Your task to perform on an android device: clear all cookies in the chrome app Image 0: 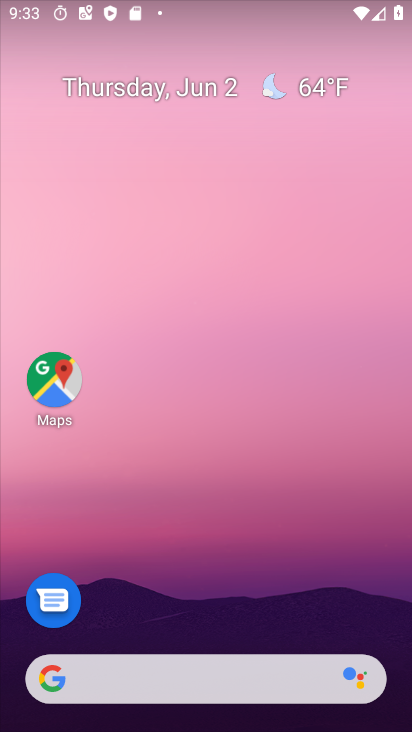
Step 0: drag from (208, 611) to (226, 27)
Your task to perform on an android device: clear all cookies in the chrome app Image 1: 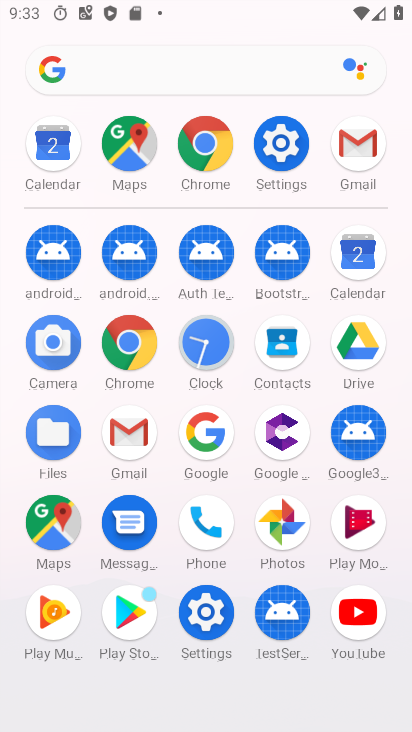
Step 1: click (132, 332)
Your task to perform on an android device: clear all cookies in the chrome app Image 2: 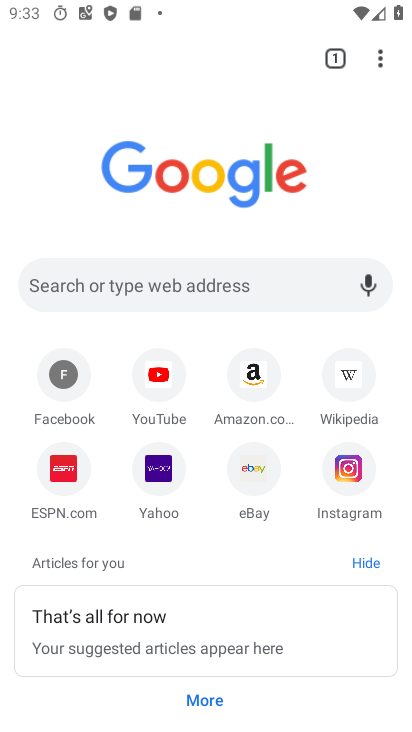
Step 2: click (370, 58)
Your task to perform on an android device: clear all cookies in the chrome app Image 3: 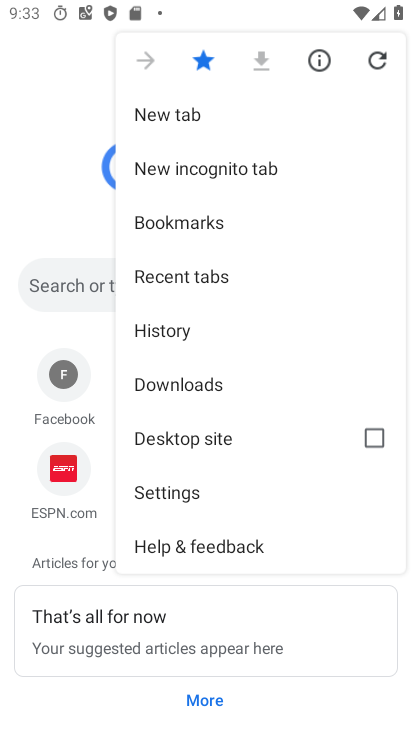
Step 3: click (197, 494)
Your task to perform on an android device: clear all cookies in the chrome app Image 4: 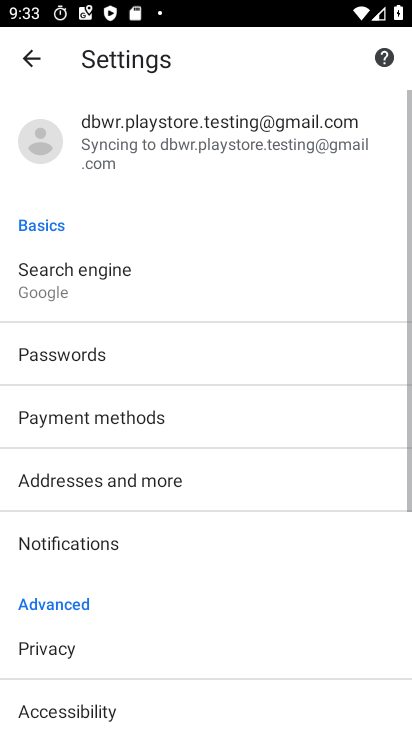
Step 4: drag from (198, 581) to (227, 93)
Your task to perform on an android device: clear all cookies in the chrome app Image 5: 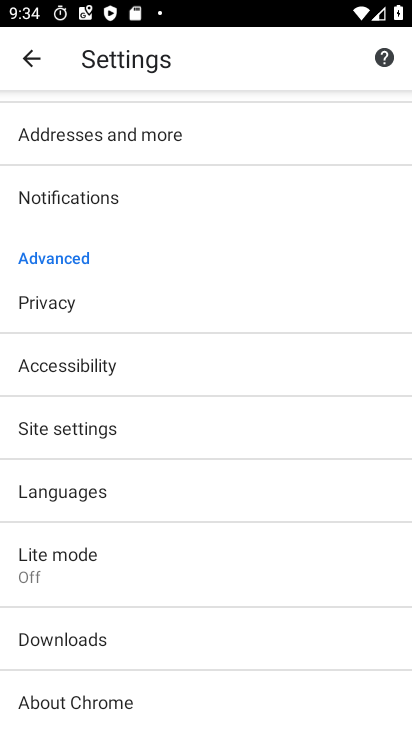
Step 5: drag from (102, 627) to (143, 256)
Your task to perform on an android device: clear all cookies in the chrome app Image 6: 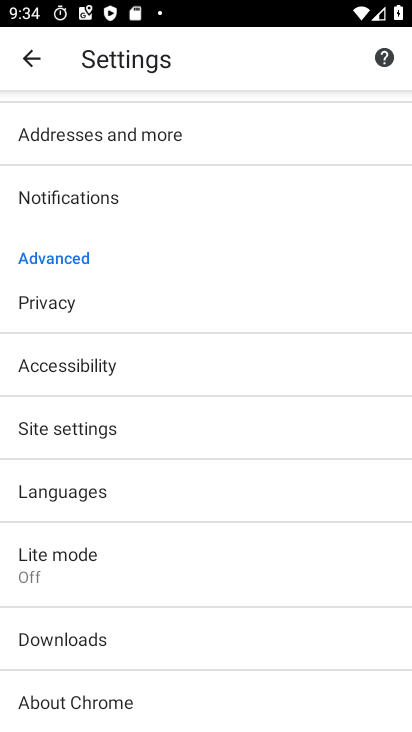
Step 6: click (79, 302)
Your task to perform on an android device: clear all cookies in the chrome app Image 7: 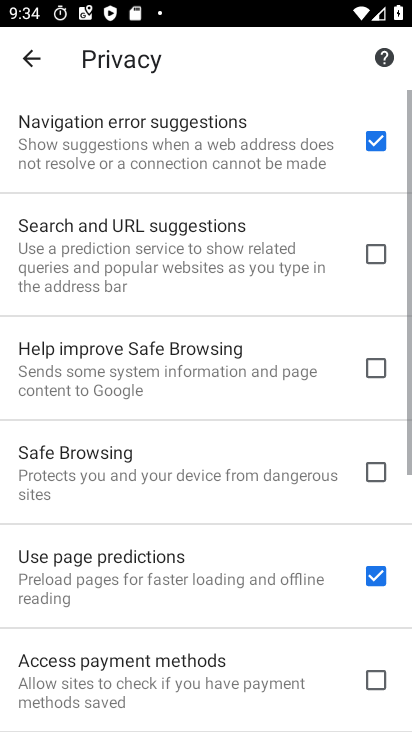
Step 7: drag from (190, 561) to (174, 11)
Your task to perform on an android device: clear all cookies in the chrome app Image 8: 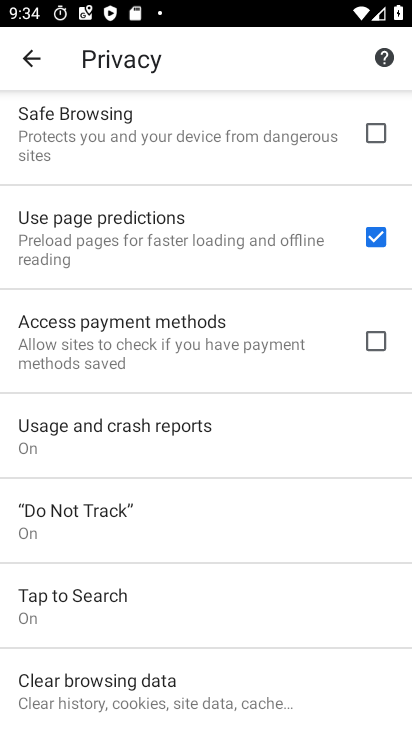
Step 8: click (136, 706)
Your task to perform on an android device: clear all cookies in the chrome app Image 9: 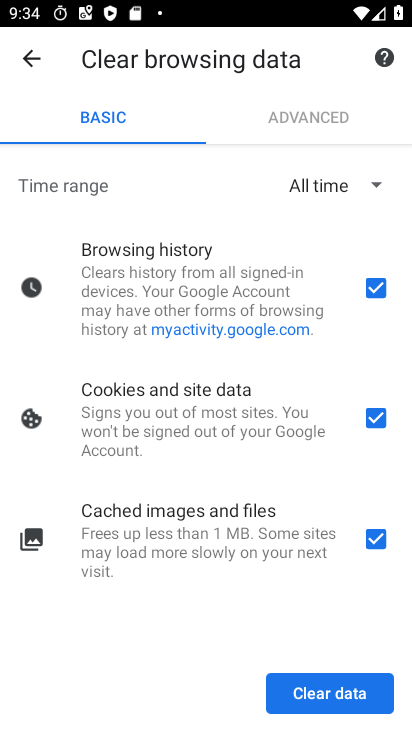
Step 9: click (386, 286)
Your task to perform on an android device: clear all cookies in the chrome app Image 10: 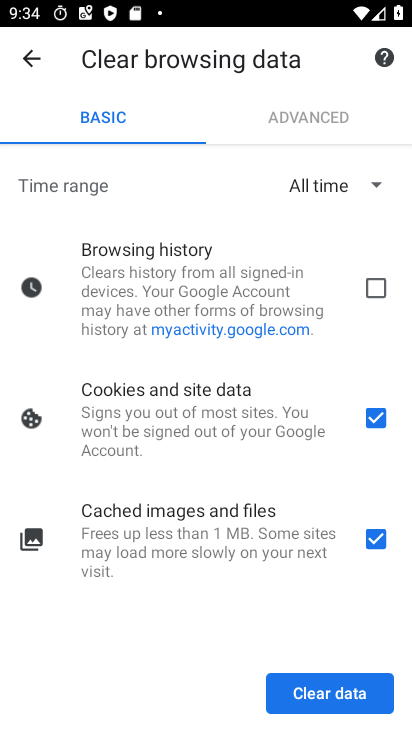
Step 10: click (373, 548)
Your task to perform on an android device: clear all cookies in the chrome app Image 11: 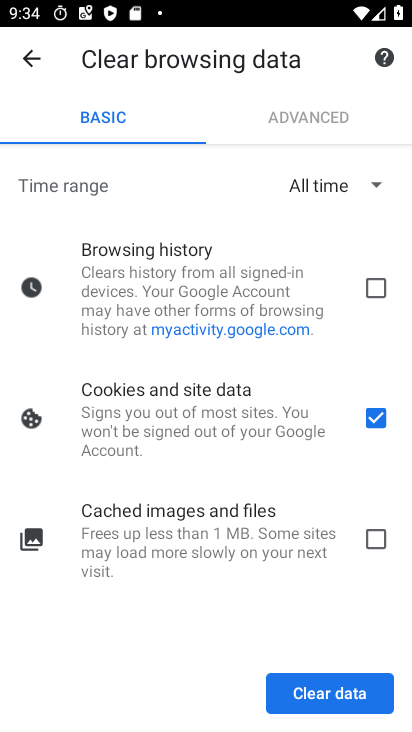
Step 11: click (307, 694)
Your task to perform on an android device: clear all cookies in the chrome app Image 12: 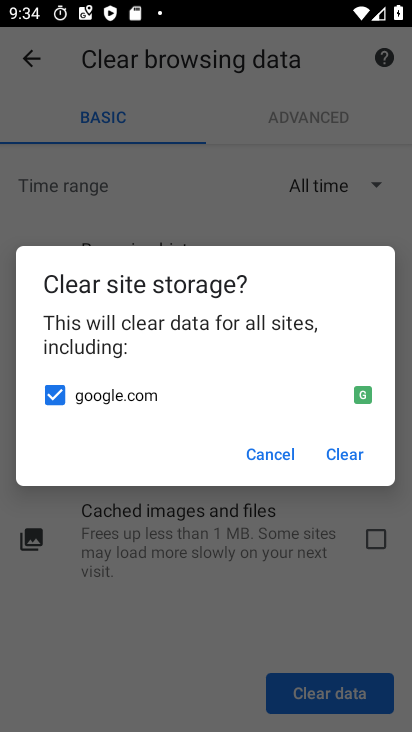
Step 12: click (342, 463)
Your task to perform on an android device: clear all cookies in the chrome app Image 13: 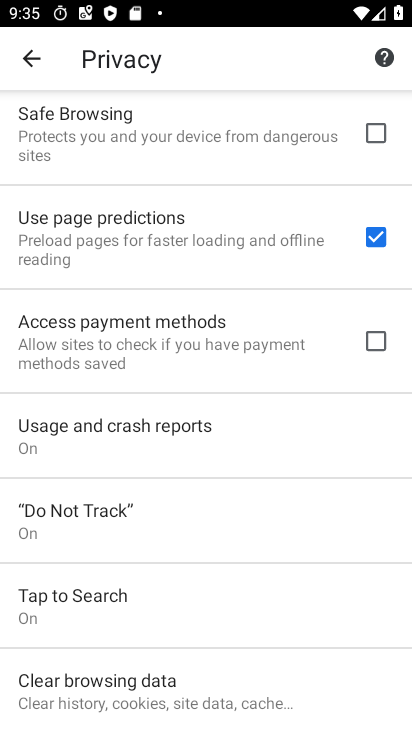
Step 13: task complete